Your task to perform on an android device: Open sound settings Image 0: 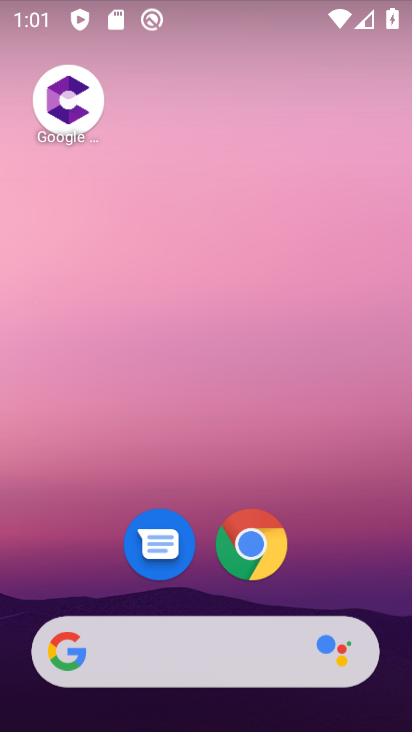
Step 0: drag from (351, 588) to (351, 176)
Your task to perform on an android device: Open sound settings Image 1: 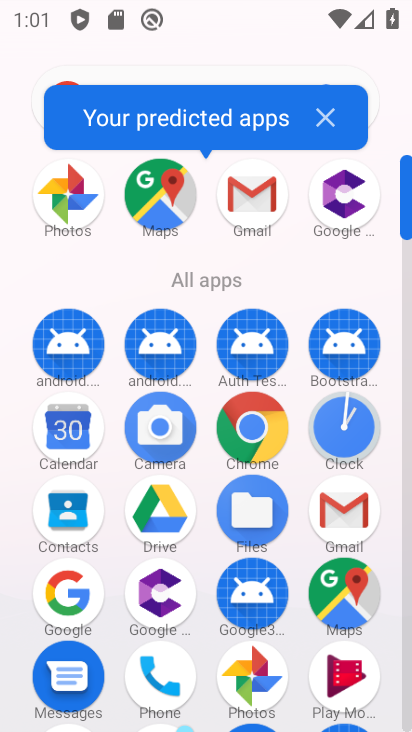
Step 1: drag from (195, 537) to (203, 299)
Your task to perform on an android device: Open sound settings Image 2: 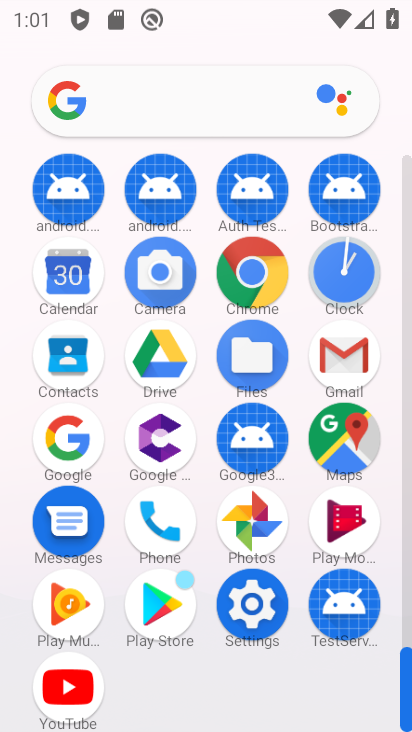
Step 2: click (258, 617)
Your task to perform on an android device: Open sound settings Image 3: 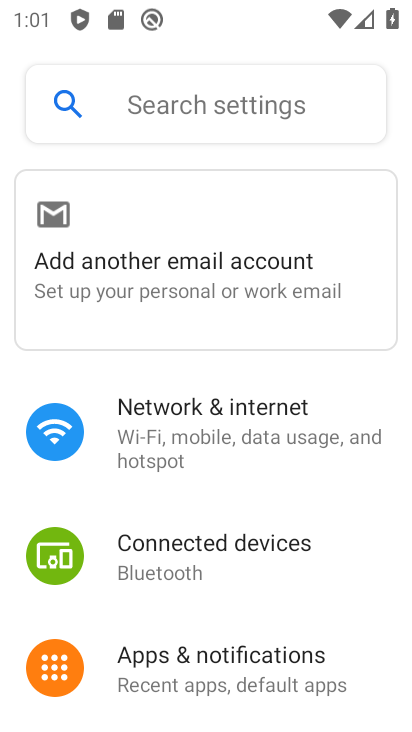
Step 3: drag from (348, 611) to (361, 509)
Your task to perform on an android device: Open sound settings Image 4: 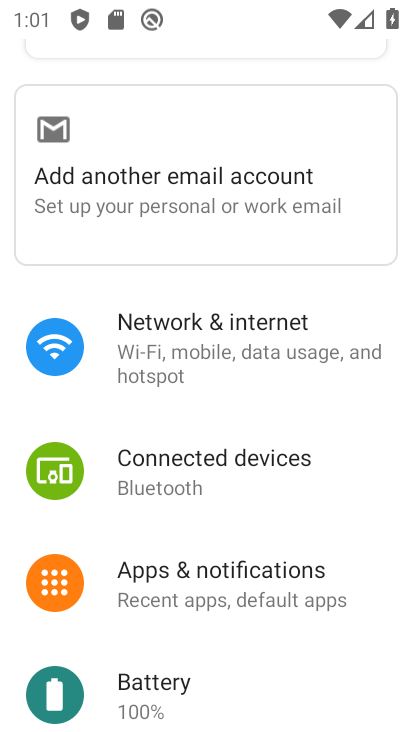
Step 4: drag from (355, 693) to (353, 586)
Your task to perform on an android device: Open sound settings Image 5: 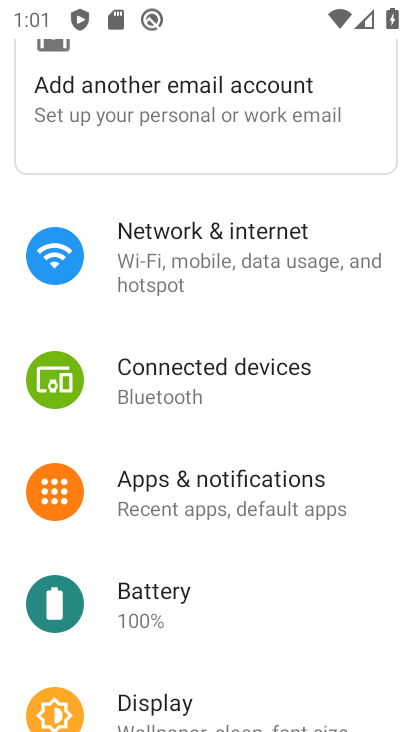
Step 5: drag from (364, 685) to (381, 565)
Your task to perform on an android device: Open sound settings Image 6: 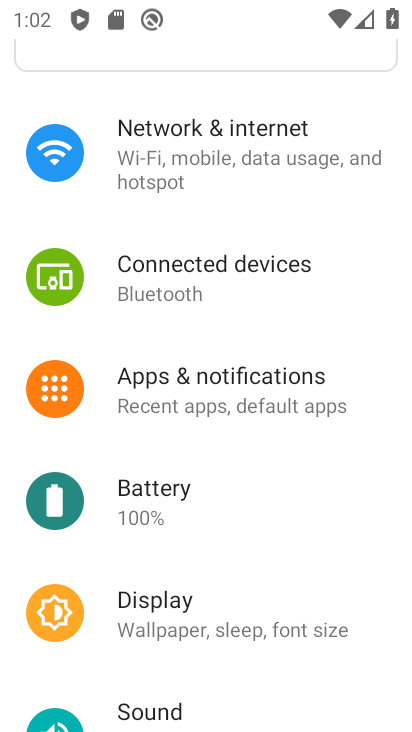
Step 6: drag from (387, 629) to (382, 529)
Your task to perform on an android device: Open sound settings Image 7: 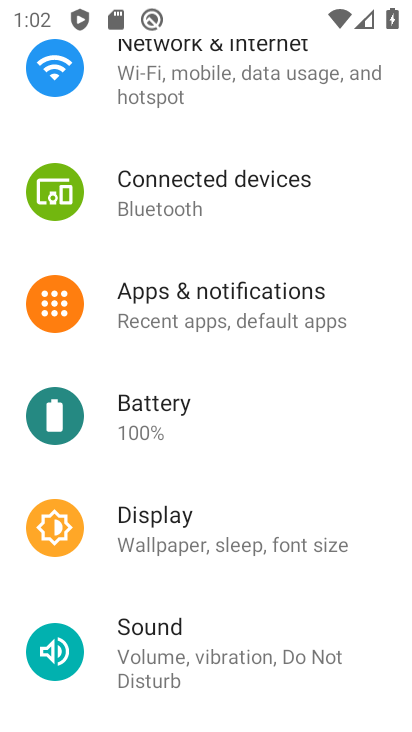
Step 7: drag from (367, 643) to (368, 512)
Your task to perform on an android device: Open sound settings Image 8: 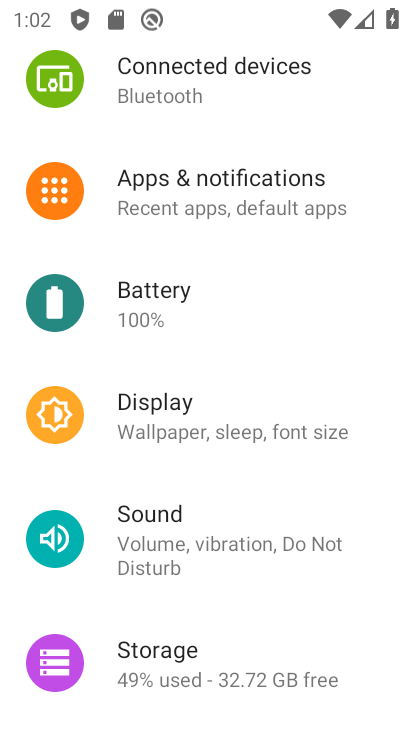
Step 8: drag from (365, 610) to (367, 456)
Your task to perform on an android device: Open sound settings Image 9: 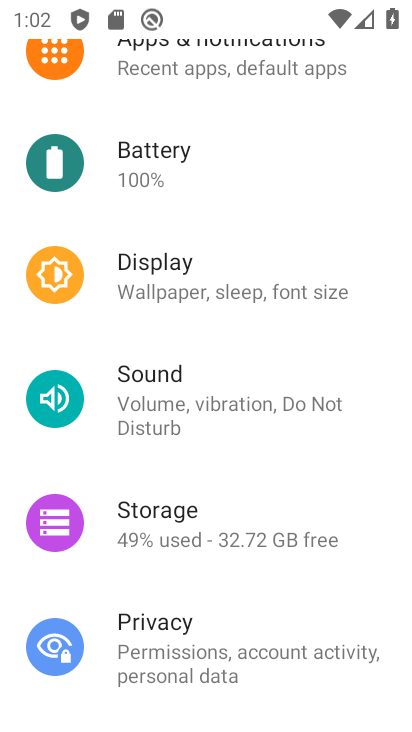
Step 9: click (324, 415)
Your task to perform on an android device: Open sound settings Image 10: 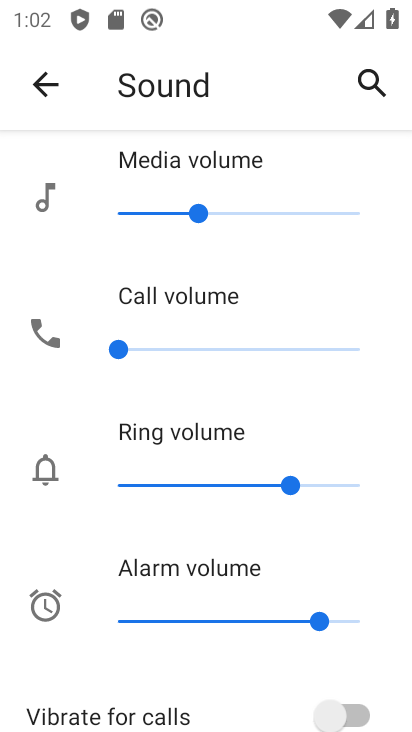
Step 10: task complete